Your task to perform on an android device: Search for a 3d printer on aliexpress Image 0: 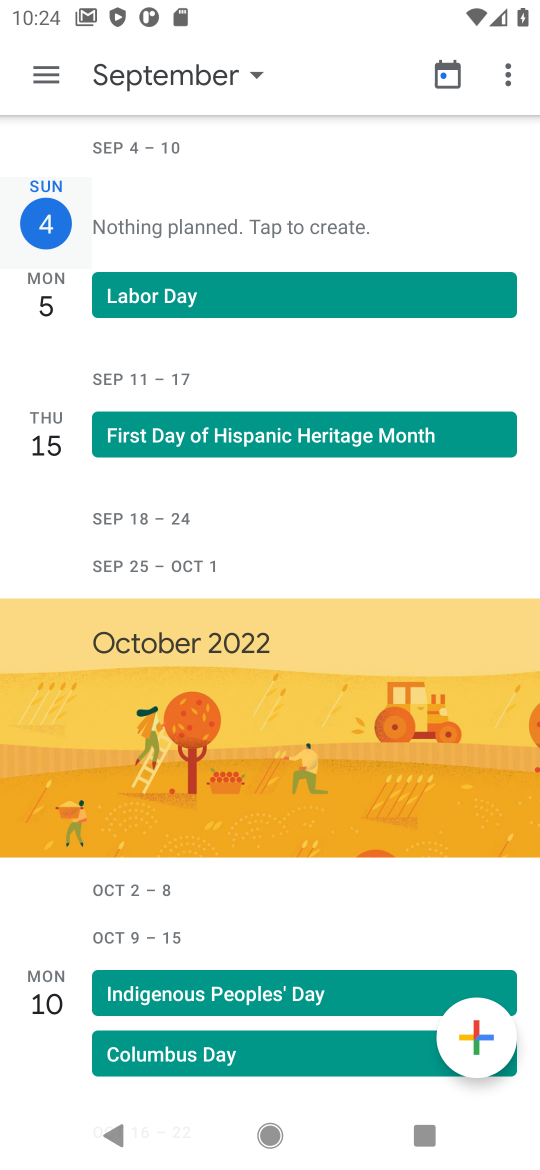
Step 0: press back button
Your task to perform on an android device: Search for a 3d printer on aliexpress Image 1: 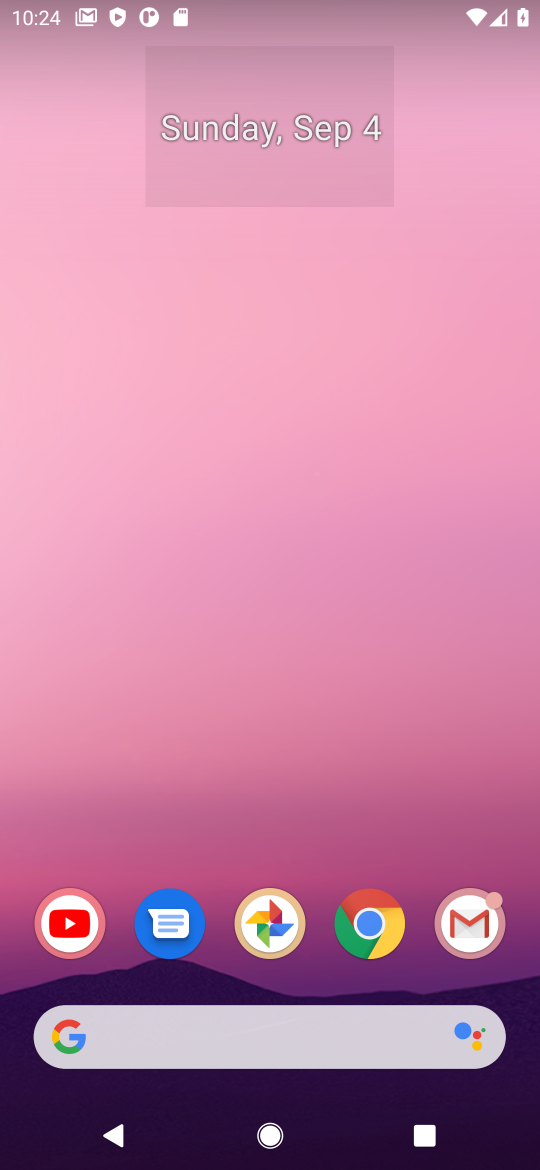
Step 1: click (358, 924)
Your task to perform on an android device: Search for a 3d printer on aliexpress Image 2: 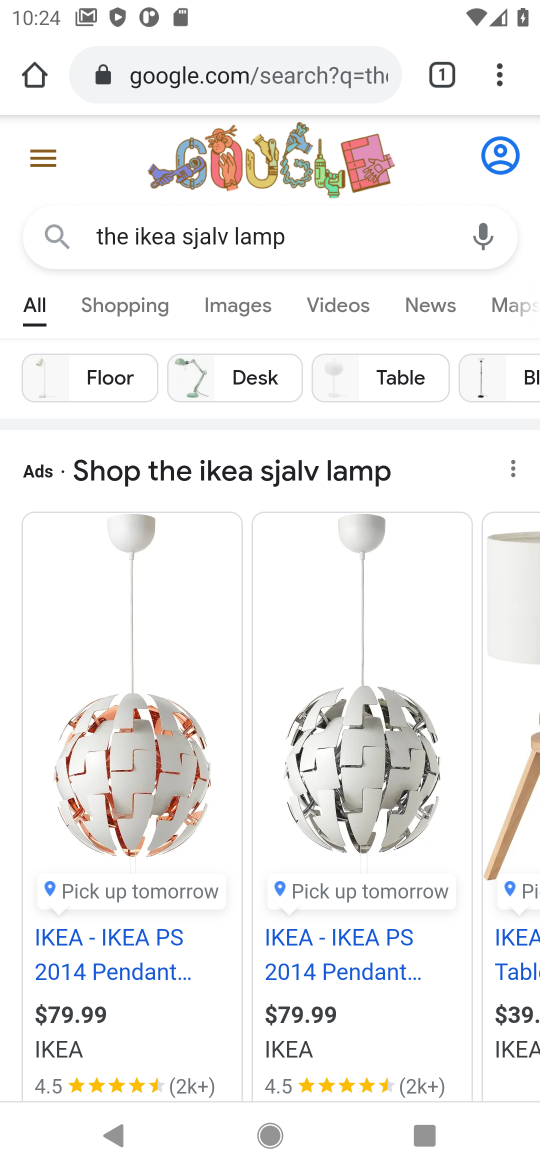
Step 2: click (215, 80)
Your task to perform on an android device: Search for a 3d printer on aliexpress Image 3: 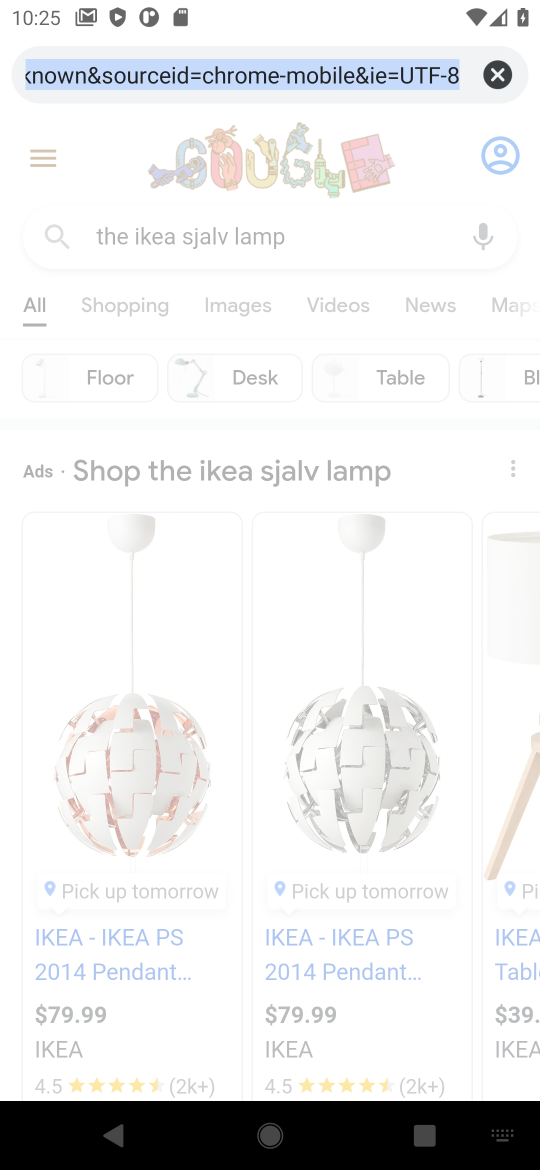
Step 3: click (503, 73)
Your task to perform on an android device: Search for a 3d printer on aliexpress Image 4: 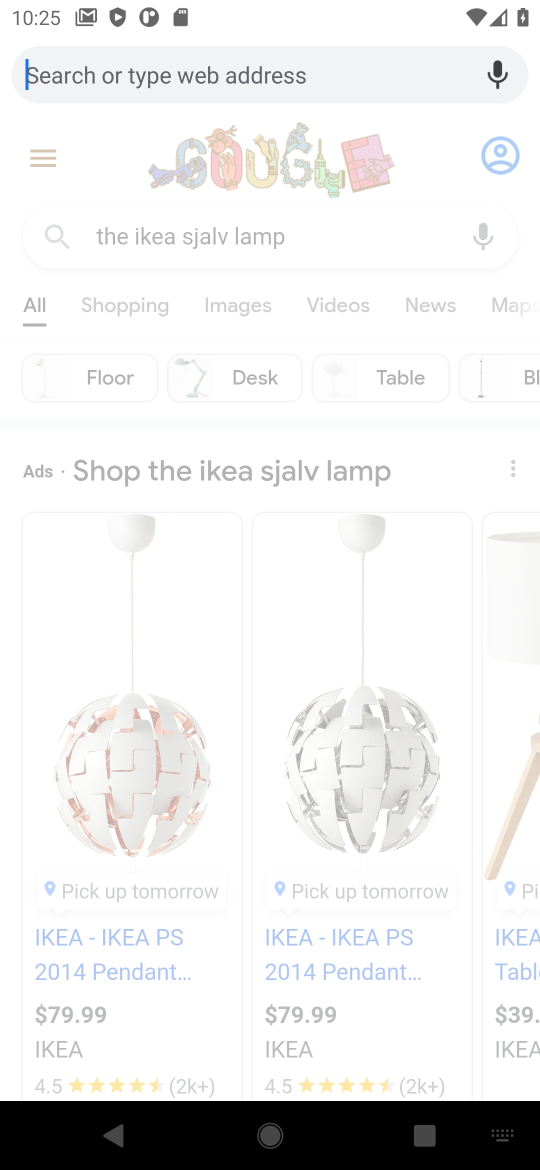
Step 4: click (123, 65)
Your task to perform on an android device: Search for a 3d printer on aliexpress Image 5: 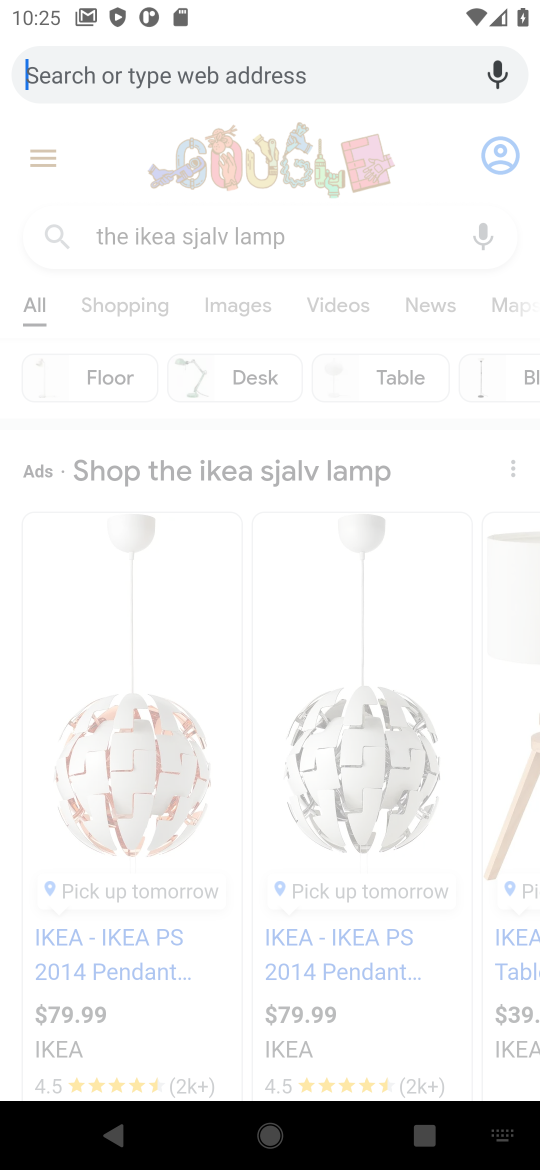
Step 5: type "3d printer on aliexpress"
Your task to perform on an android device: Search for a 3d printer on aliexpress Image 6: 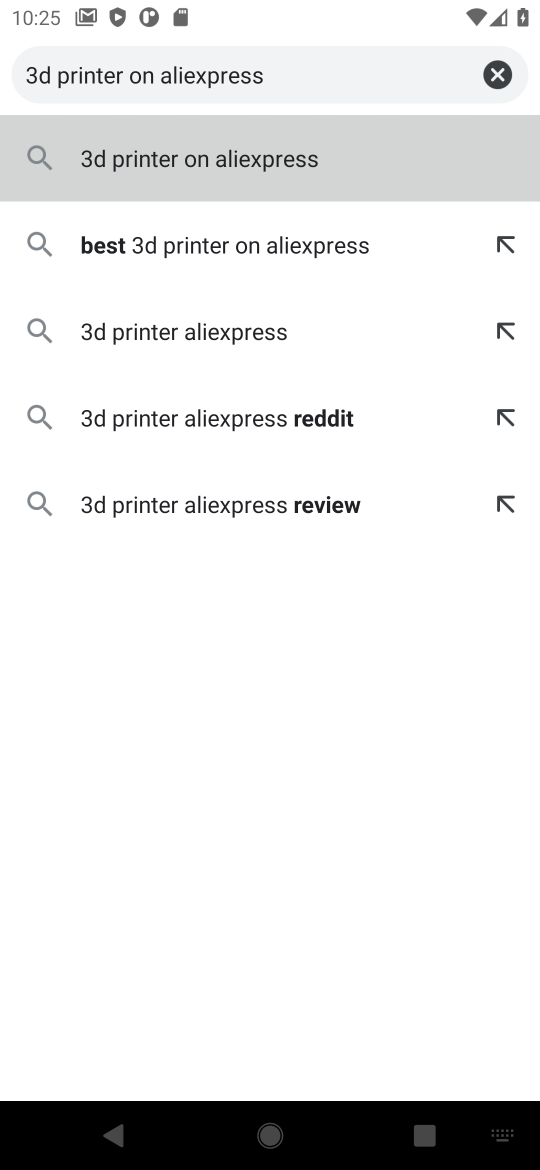
Step 6: click (294, 145)
Your task to perform on an android device: Search for a 3d printer on aliexpress Image 7: 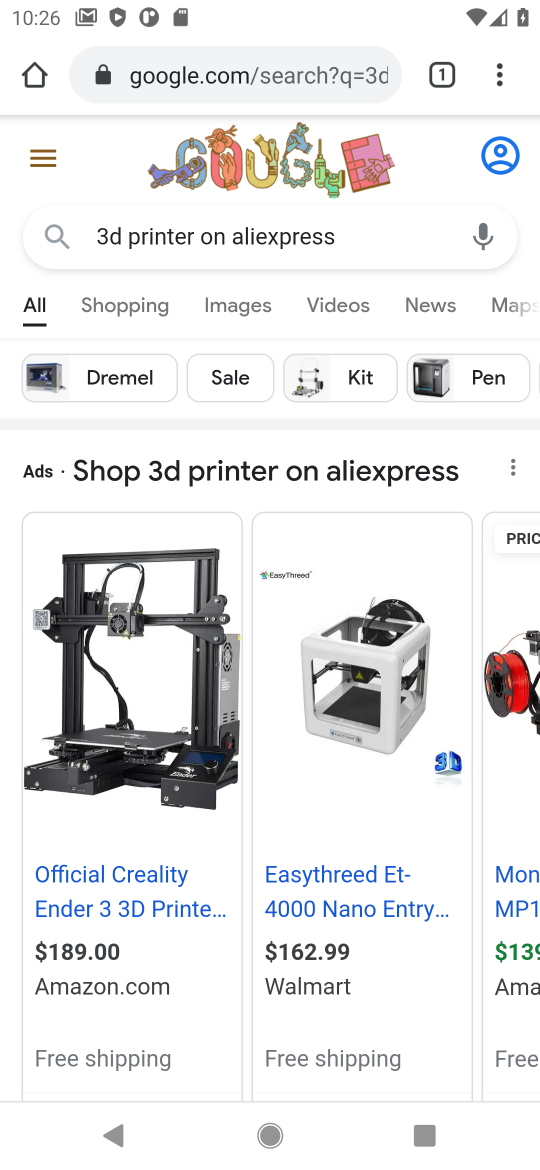
Step 7: drag from (3, 1035) to (109, 509)
Your task to perform on an android device: Search for a 3d printer on aliexpress Image 8: 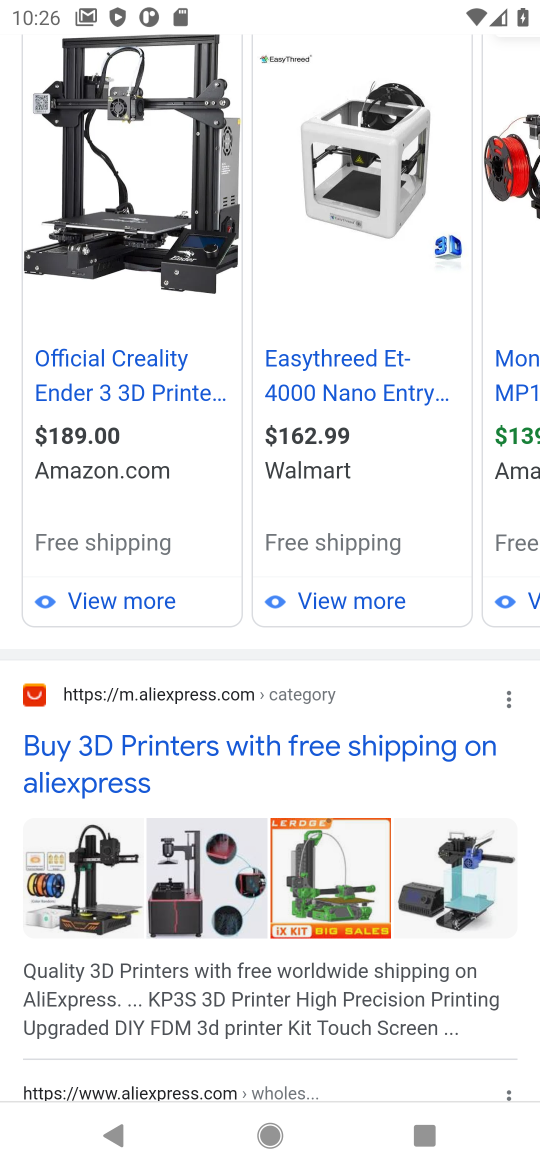
Step 8: click (131, 439)
Your task to perform on an android device: Search for a 3d printer on aliexpress Image 9: 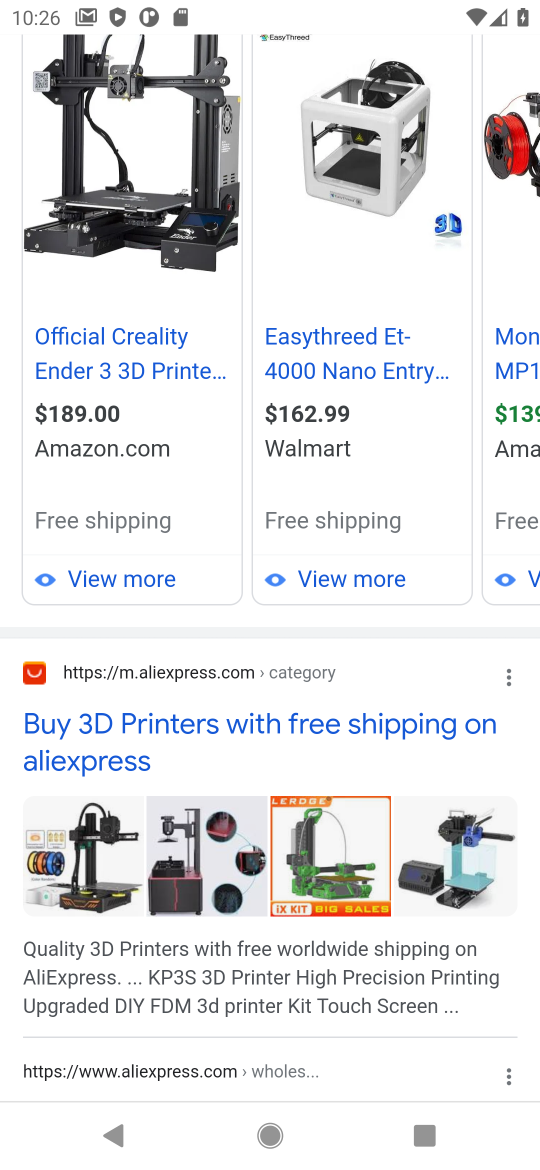
Step 9: task complete